Your task to perform on an android device: Open ESPN.com Image 0: 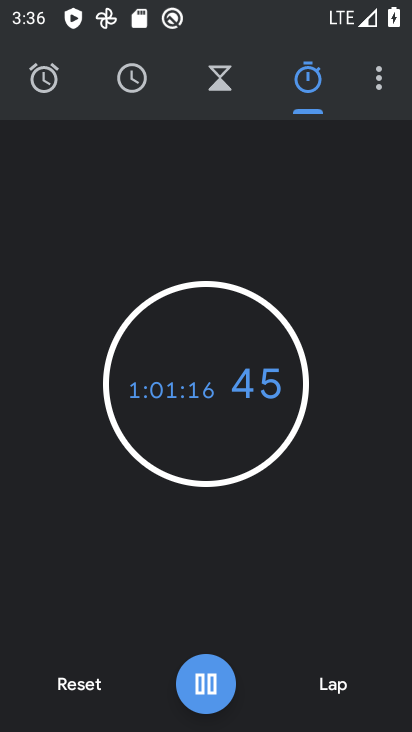
Step 0: press home button
Your task to perform on an android device: Open ESPN.com Image 1: 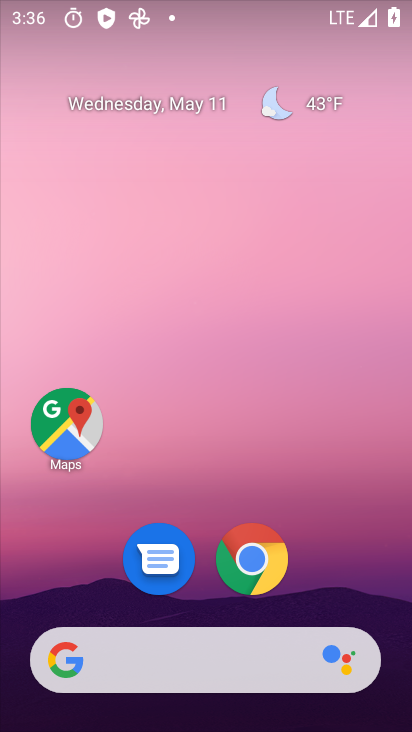
Step 1: drag from (326, 583) to (190, 116)
Your task to perform on an android device: Open ESPN.com Image 2: 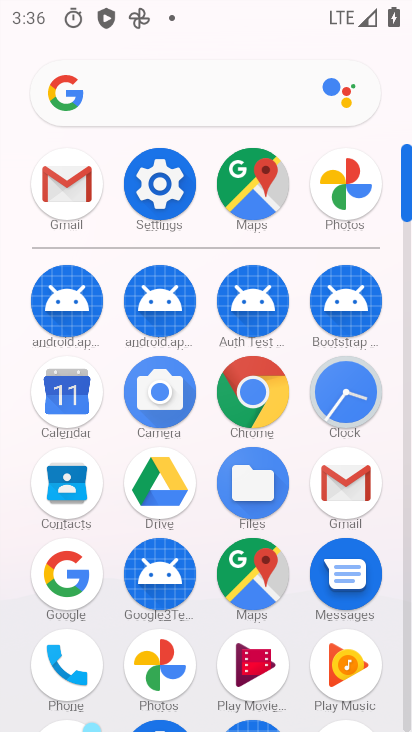
Step 2: click (250, 413)
Your task to perform on an android device: Open ESPN.com Image 3: 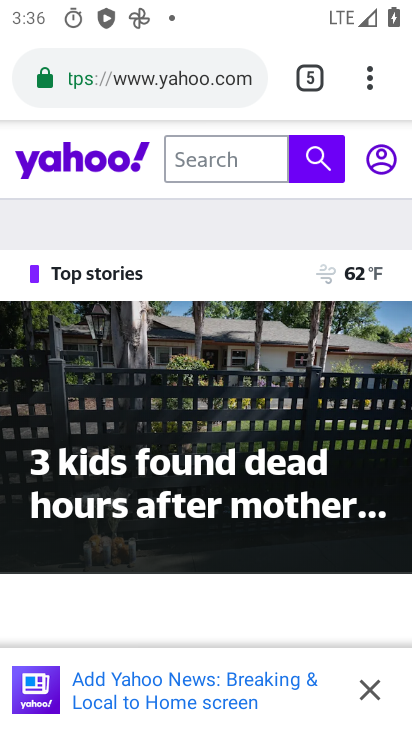
Step 3: click (300, 71)
Your task to perform on an android device: Open ESPN.com Image 4: 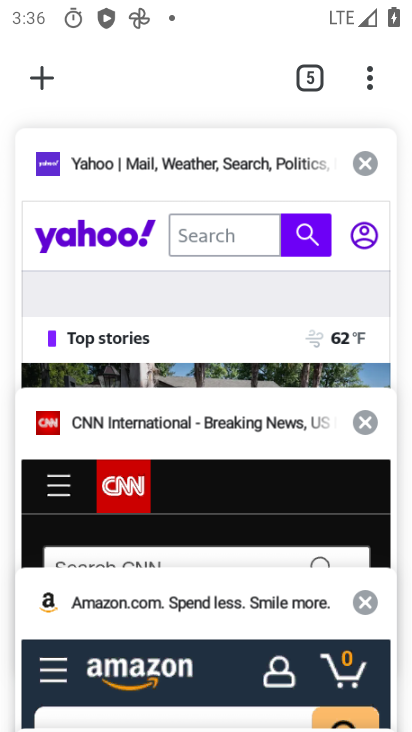
Step 4: drag from (148, 208) to (170, 527)
Your task to perform on an android device: Open ESPN.com Image 5: 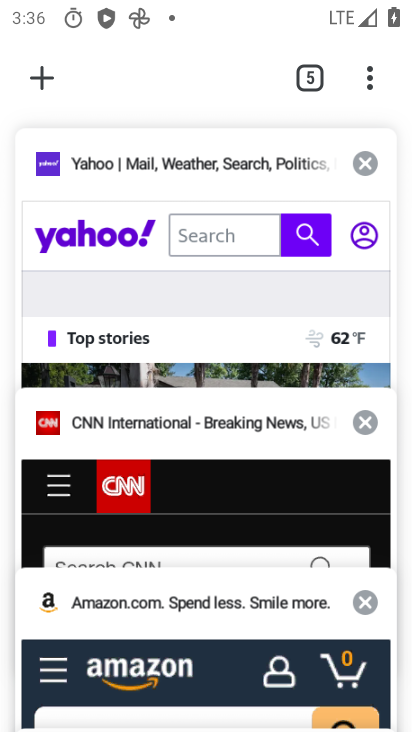
Step 5: click (46, 78)
Your task to perform on an android device: Open ESPN.com Image 6: 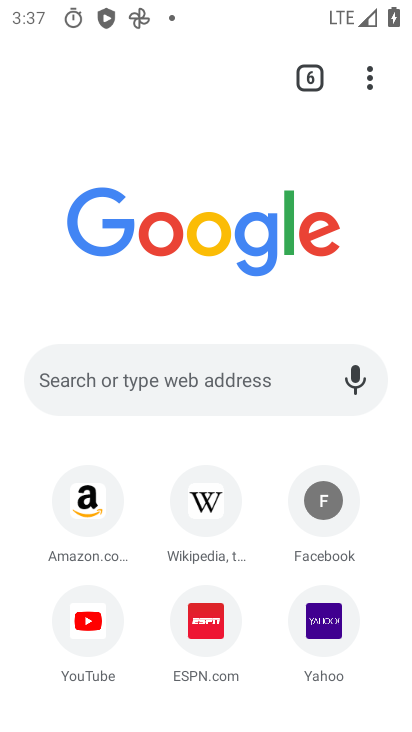
Step 6: click (201, 624)
Your task to perform on an android device: Open ESPN.com Image 7: 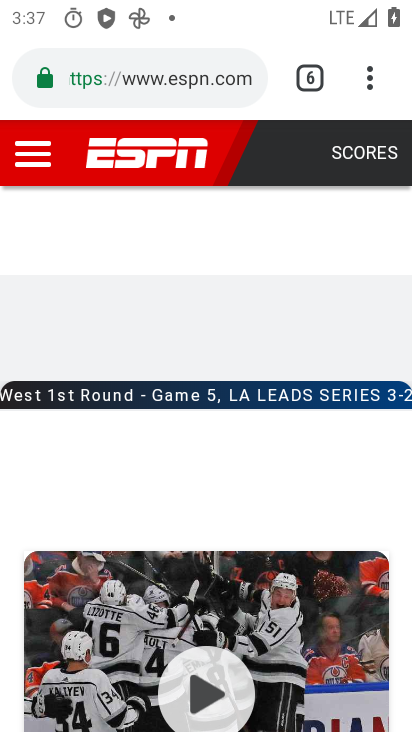
Step 7: task complete